Your task to perform on an android device: turn on improve location accuracy Image 0: 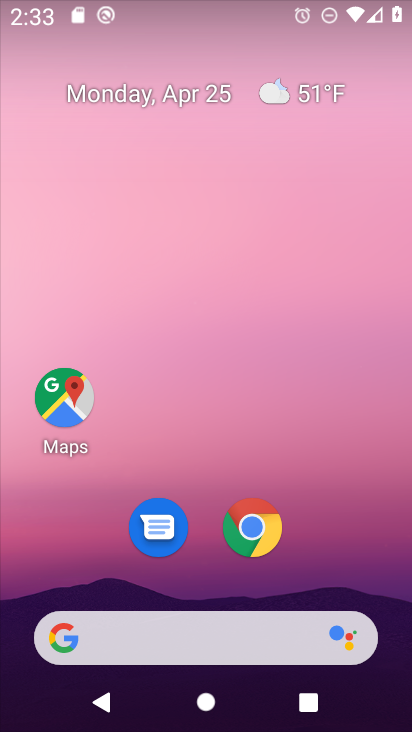
Step 0: drag from (379, 552) to (210, 4)
Your task to perform on an android device: turn on improve location accuracy Image 1: 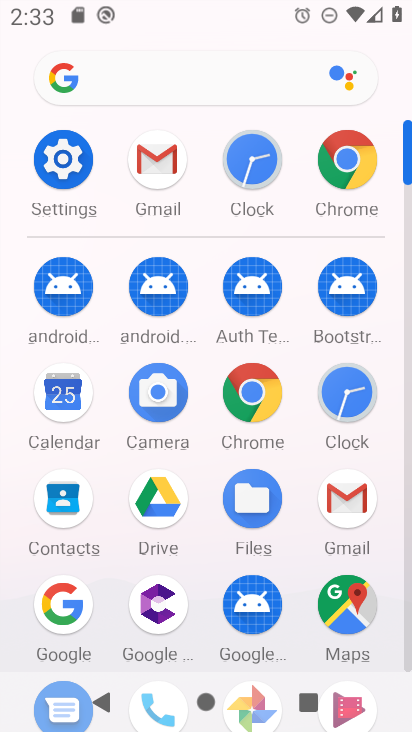
Step 1: drag from (21, 532) to (32, 222)
Your task to perform on an android device: turn on improve location accuracy Image 2: 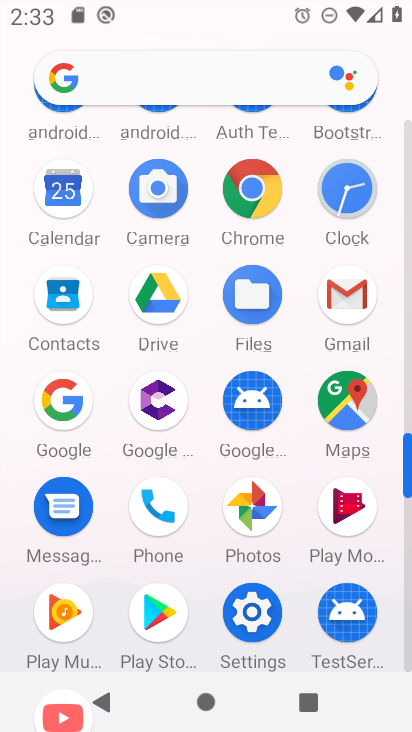
Step 2: click (250, 607)
Your task to perform on an android device: turn on improve location accuracy Image 3: 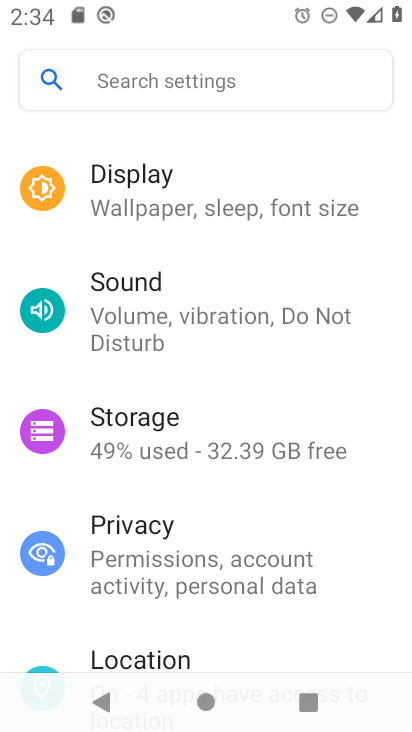
Step 3: drag from (328, 559) to (310, 221)
Your task to perform on an android device: turn on improve location accuracy Image 4: 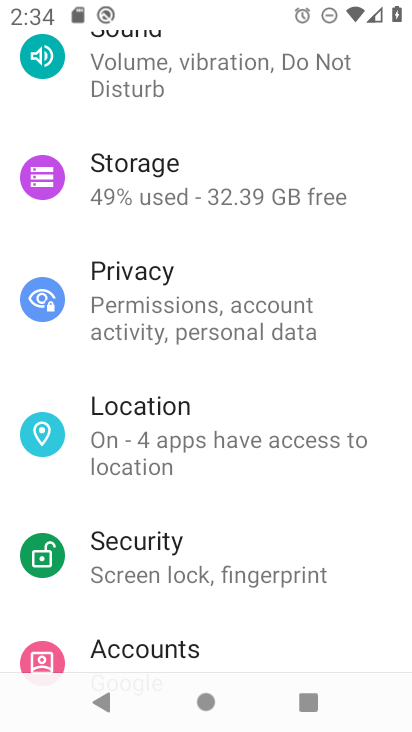
Step 4: click (202, 442)
Your task to perform on an android device: turn on improve location accuracy Image 5: 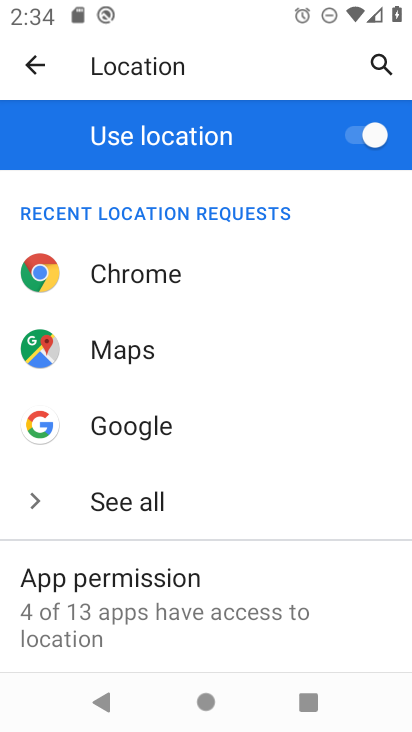
Step 5: drag from (272, 483) to (311, 154)
Your task to perform on an android device: turn on improve location accuracy Image 6: 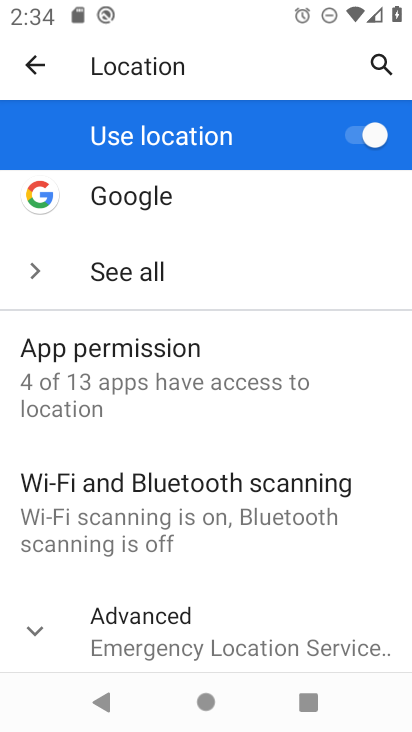
Step 6: drag from (259, 496) to (271, 193)
Your task to perform on an android device: turn on improve location accuracy Image 7: 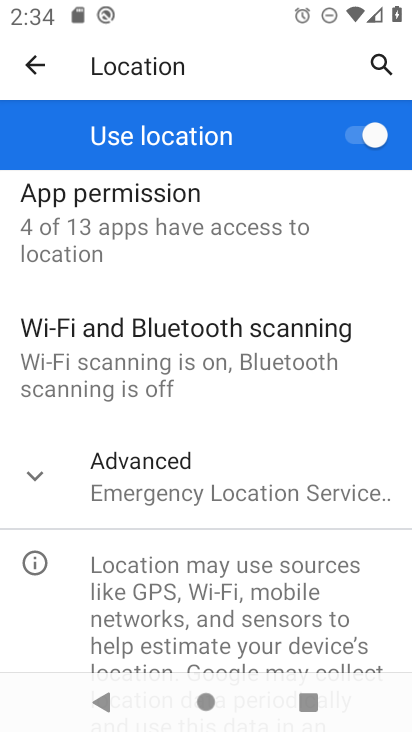
Step 7: click (138, 456)
Your task to perform on an android device: turn on improve location accuracy Image 8: 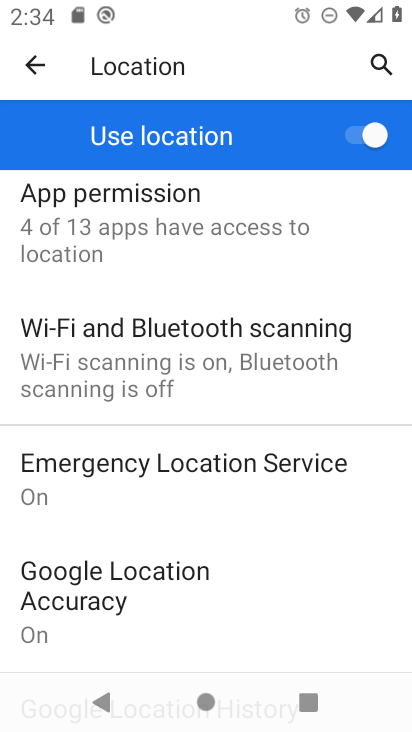
Step 8: drag from (226, 573) to (267, 217)
Your task to perform on an android device: turn on improve location accuracy Image 9: 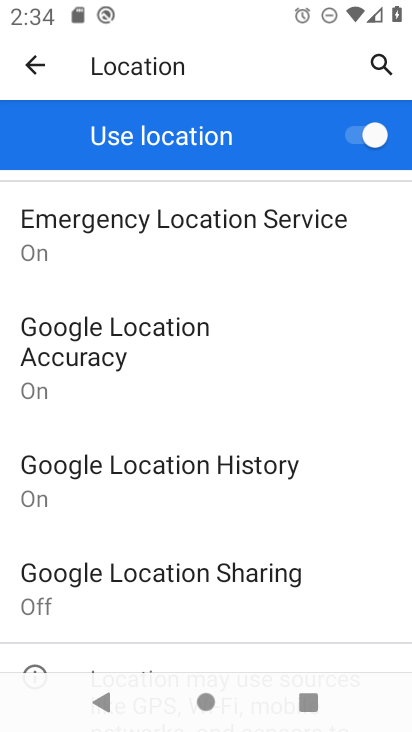
Step 9: click (146, 373)
Your task to perform on an android device: turn on improve location accuracy Image 10: 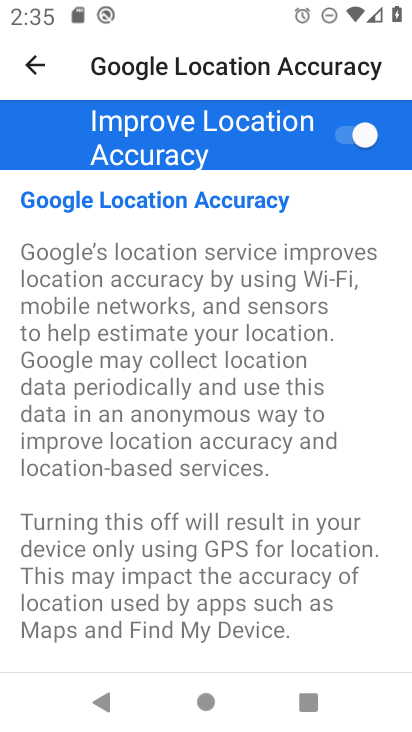
Step 10: task complete